Your task to perform on an android device: Open Maps and search for coffee Image 0: 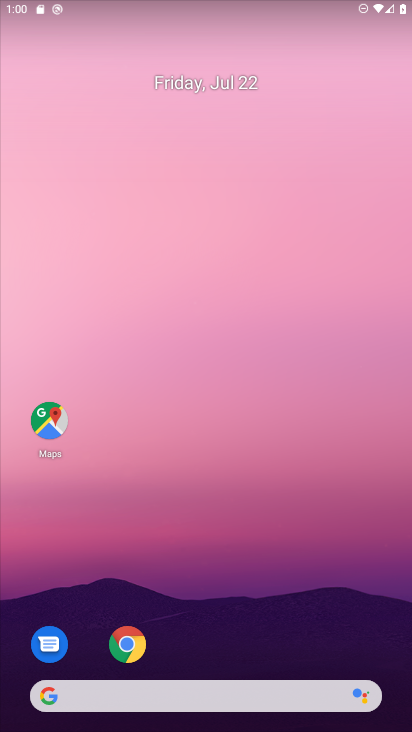
Step 0: click (54, 426)
Your task to perform on an android device: Open Maps and search for coffee Image 1: 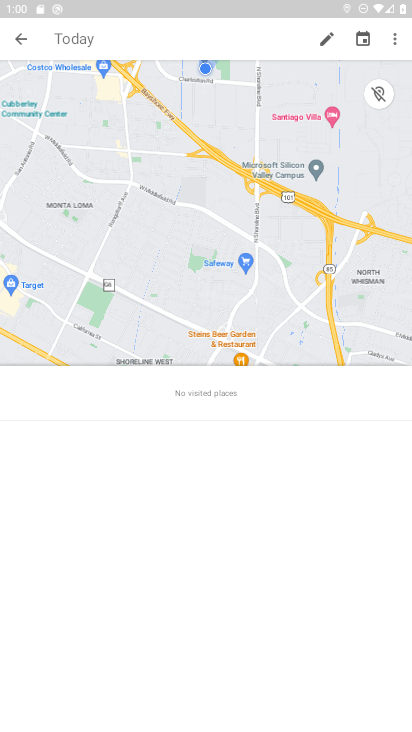
Step 1: click (14, 39)
Your task to perform on an android device: Open Maps and search for coffee Image 2: 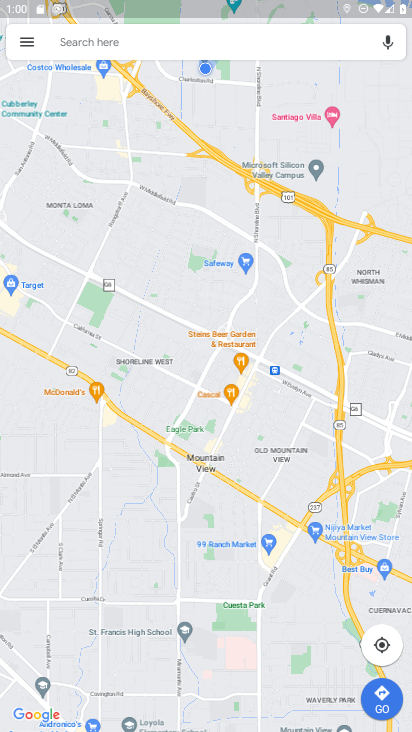
Step 2: click (186, 30)
Your task to perform on an android device: Open Maps and search for coffee Image 3: 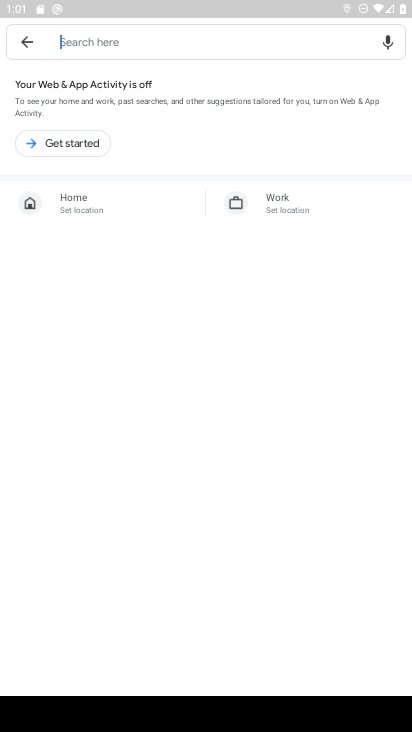
Step 3: type "coffee"
Your task to perform on an android device: Open Maps and search for coffee Image 4: 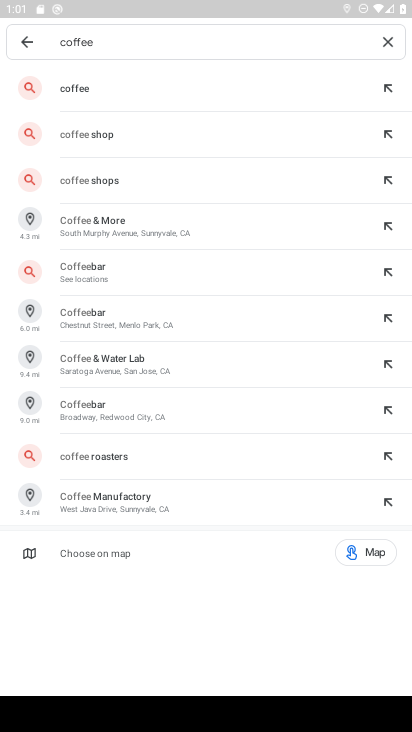
Step 4: click (190, 93)
Your task to perform on an android device: Open Maps and search for coffee Image 5: 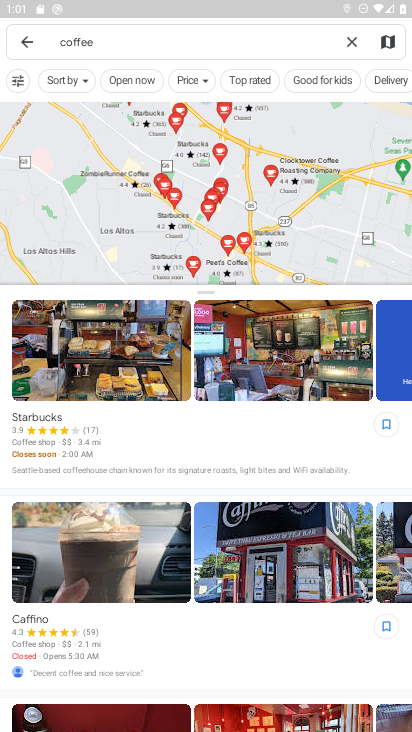
Step 5: task complete